Your task to perform on an android device: Open sound settings Image 0: 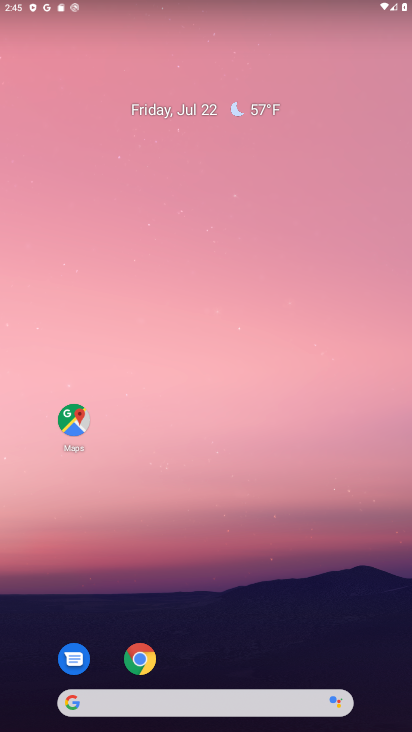
Step 0: drag from (244, 551) to (255, 60)
Your task to perform on an android device: Open sound settings Image 1: 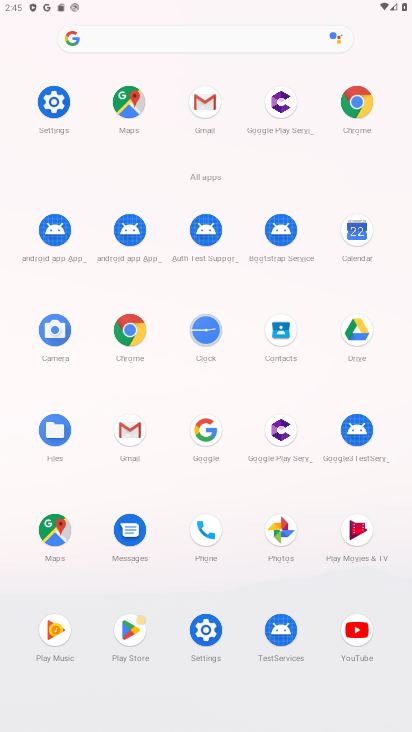
Step 1: click (38, 114)
Your task to perform on an android device: Open sound settings Image 2: 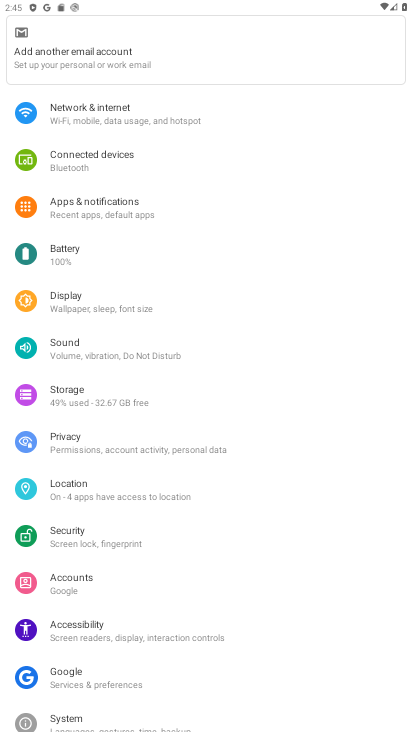
Step 2: click (53, 341)
Your task to perform on an android device: Open sound settings Image 3: 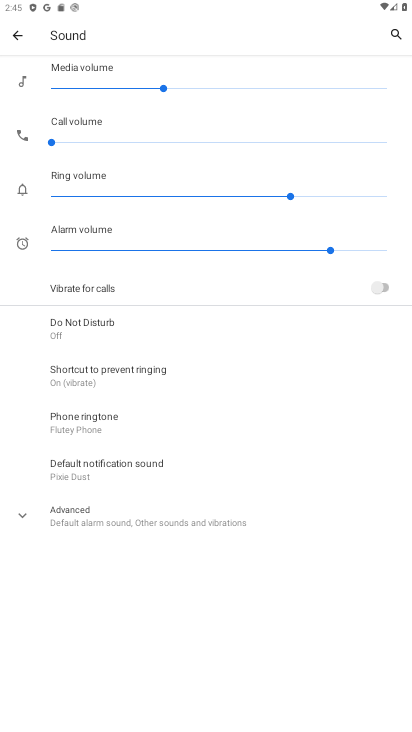
Step 3: task complete